Your task to perform on an android device: Open the web browser Image 0: 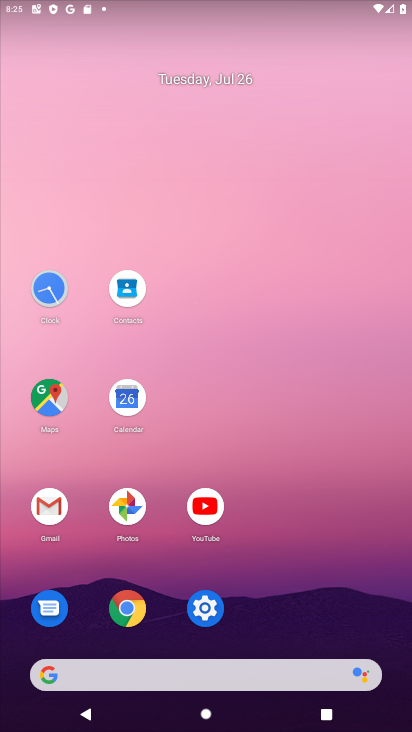
Step 0: click (127, 607)
Your task to perform on an android device: Open the web browser Image 1: 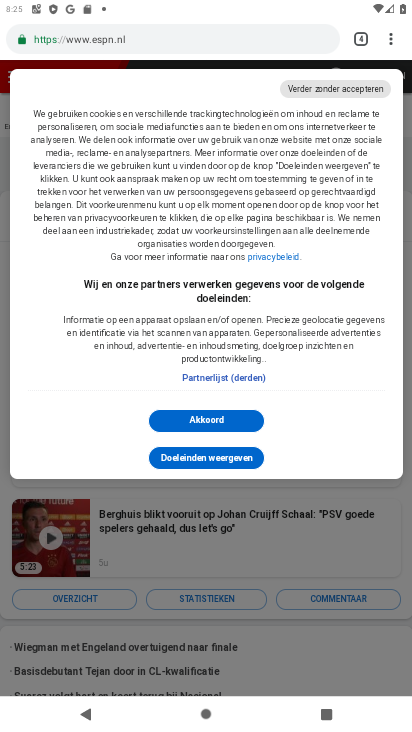
Step 1: task complete